Your task to perform on an android device: see tabs open on other devices in the chrome app Image 0: 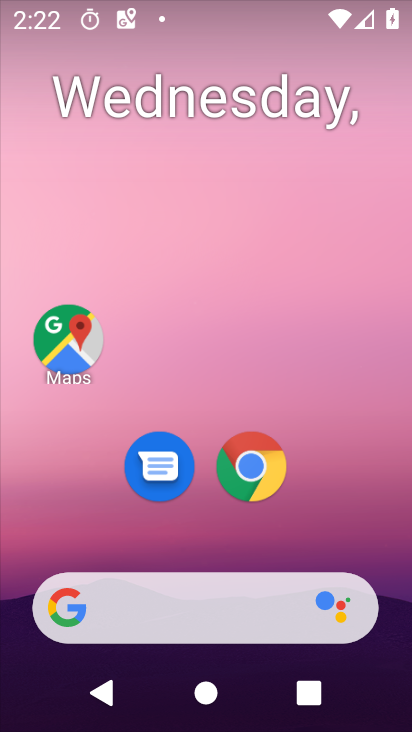
Step 0: click (273, 482)
Your task to perform on an android device: see tabs open on other devices in the chrome app Image 1: 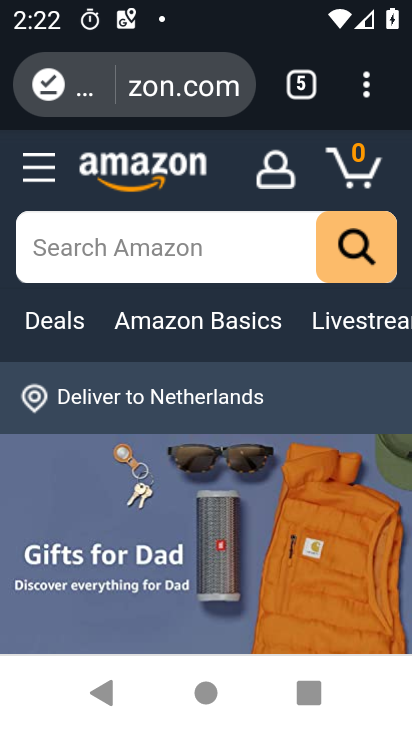
Step 1: click (301, 80)
Your task to perform on an android device: see tabs open on other devices in the chrome app Image 2: 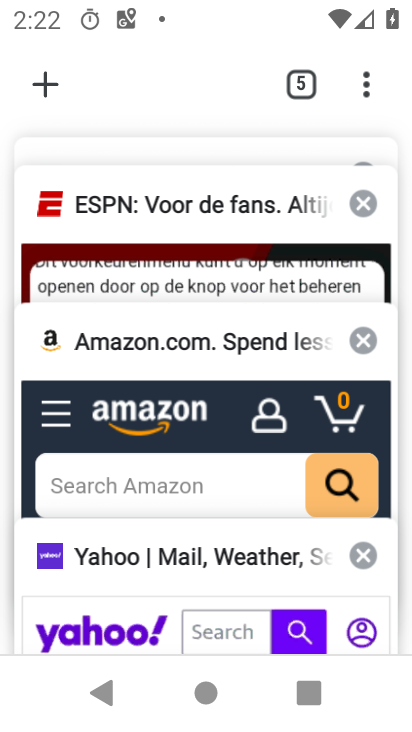
Step 2: click (173, 578)
Your task to perform on an android device: see tabs open on other devices in the chrome app Image 3: 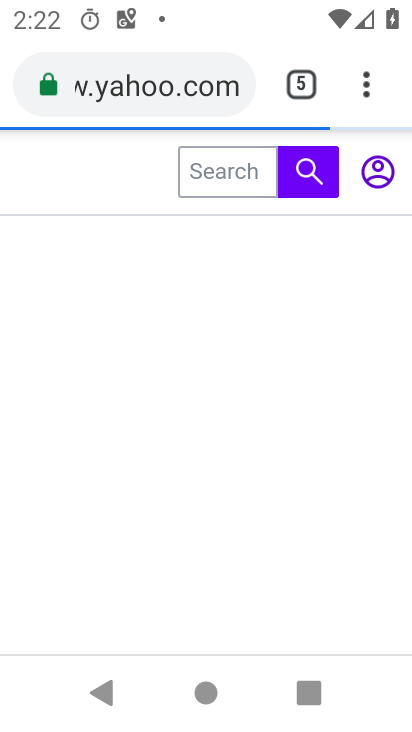
Step 3: task complete